Your task to perform on an android device: Go to internet settings Image 0: 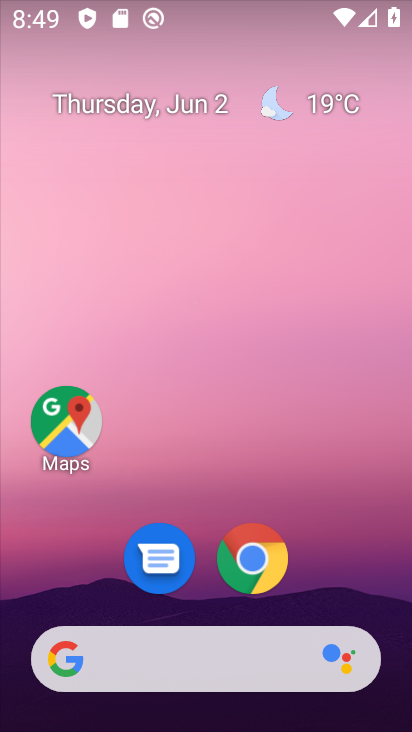
Step 0: drag from (349, 603) to (301, 27)
Your task to perform on an android device: Go to internet settings Image 1: 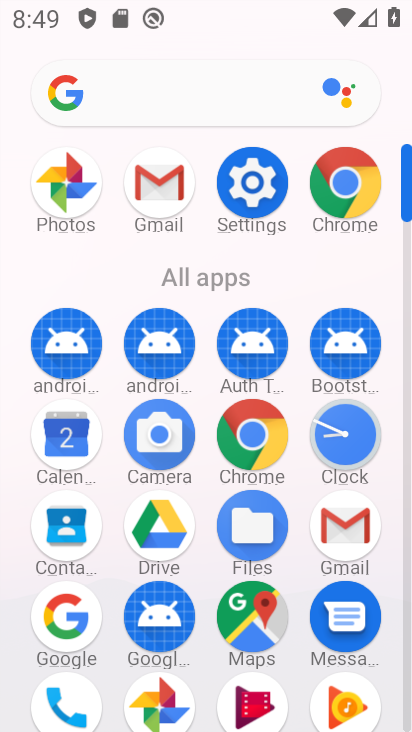
Step 1: click (406, 651)
Your task to perform on an android device: Go to internet settings Image 2: 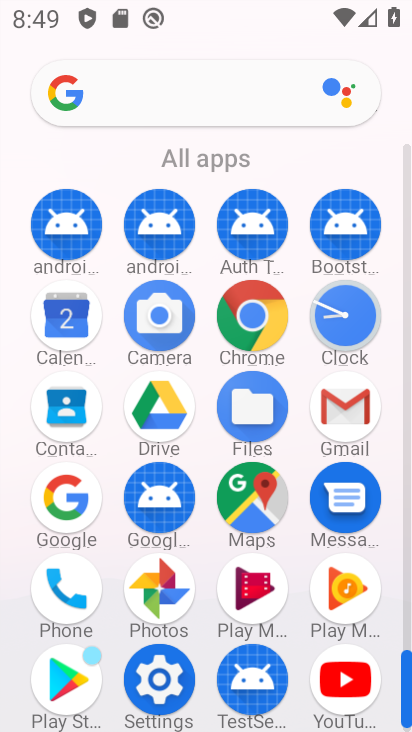
Step 2: click (160, 677)
Your task to perform on an android device: Go to internet settings Image 3: 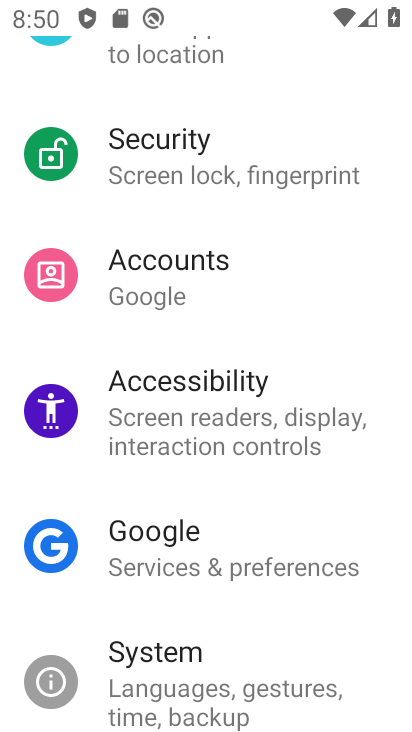
Step 3: drag from (283, 89) to (269, 519)
Your task to perform on an android device: Go to internet settings Image 4: 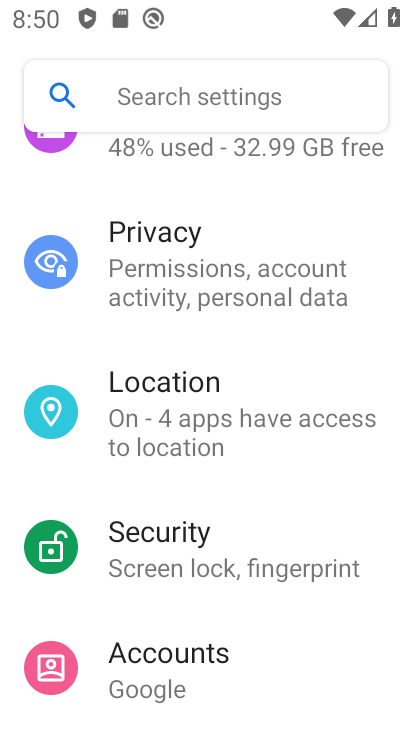
Step 4: drag from (290, 213) to (293, 566)
Your task to perform on an android device: Go to internet settings Image 5: 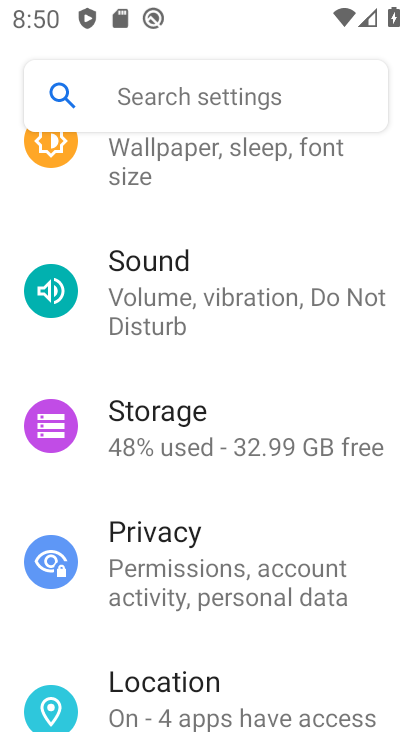
Step 5: drag from (268, 172) to (326, 676)
Your task to perform on an android device: Go to internet settings Image 6: 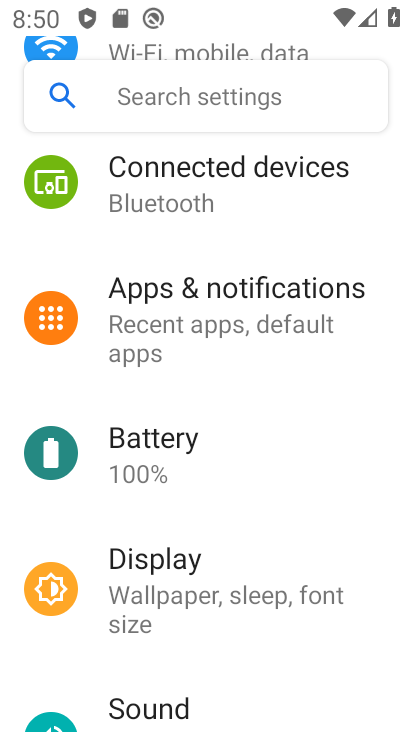
Step 6: drag from (307, 227) to (283, 649)
Your task to perform on an android device: Go to internet settings Image 7: 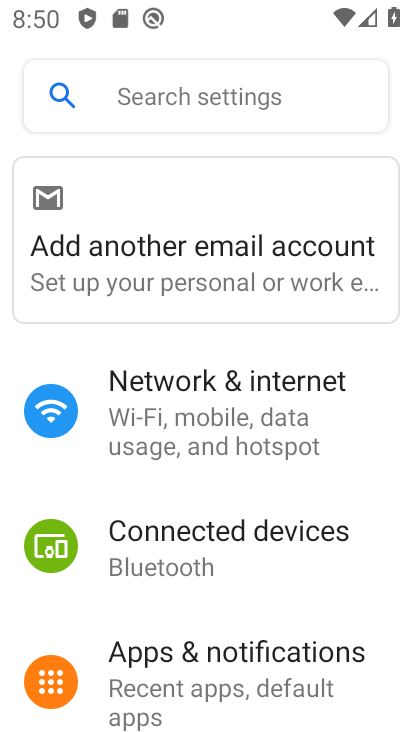
Step 7: click (177, 410)
Your task to perform on an android device: Go to internet settings Image 8: 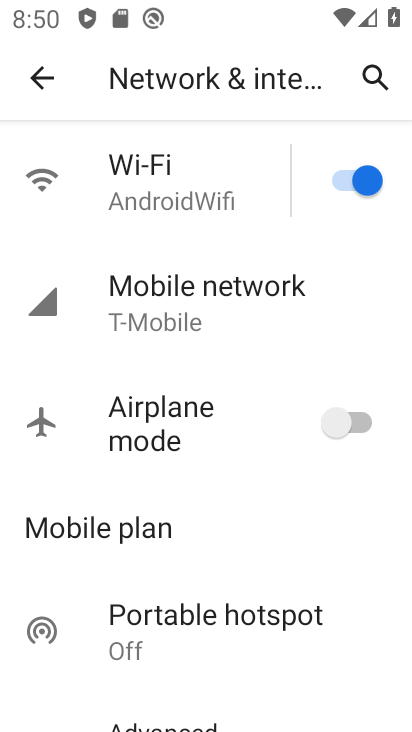
Step 8: click (157, 289)
Your task to perform on an android device: Go to internet settings Image 9: 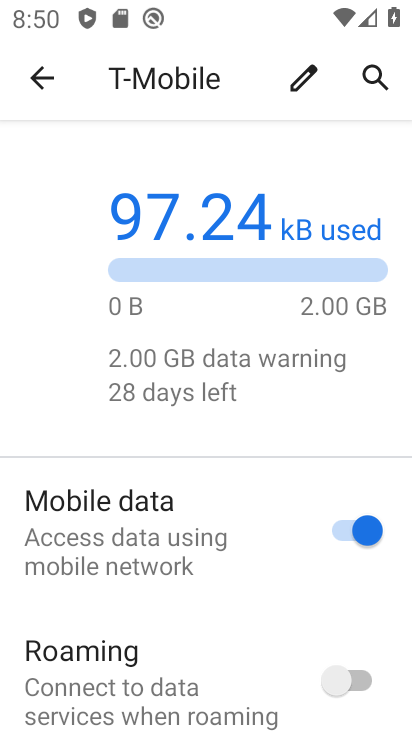
Step 9: task complete